Your task to perform on an android device: delete browsing data in the chrome app Image 0: 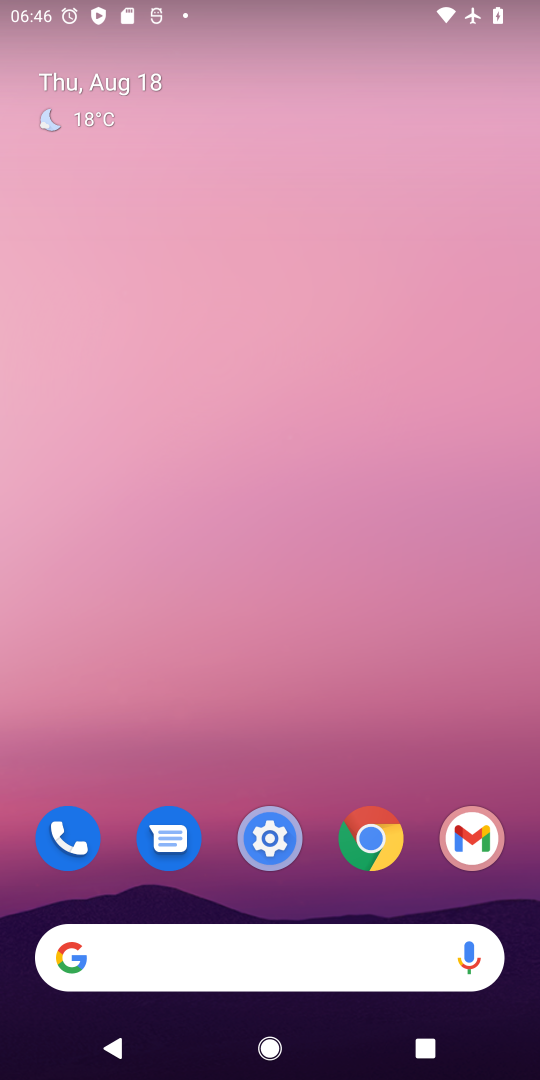
Step 0: press home button
Your task to perform on an android device: delete browsing data in the chrome app Image 1: 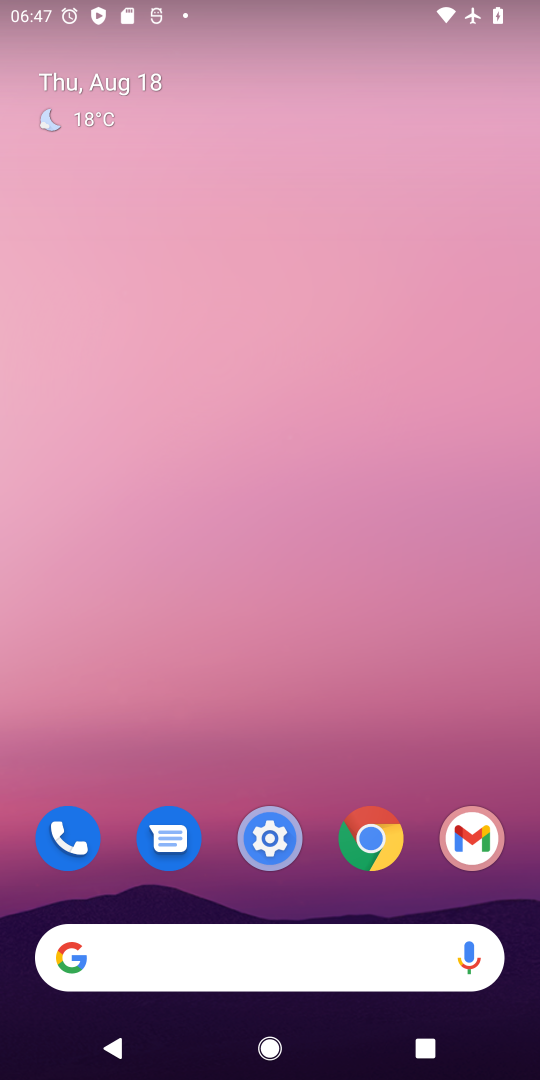
Step 1: click (373, 836)
Your task to perform on an android device: delete browsing data in the chrome app Image 2: 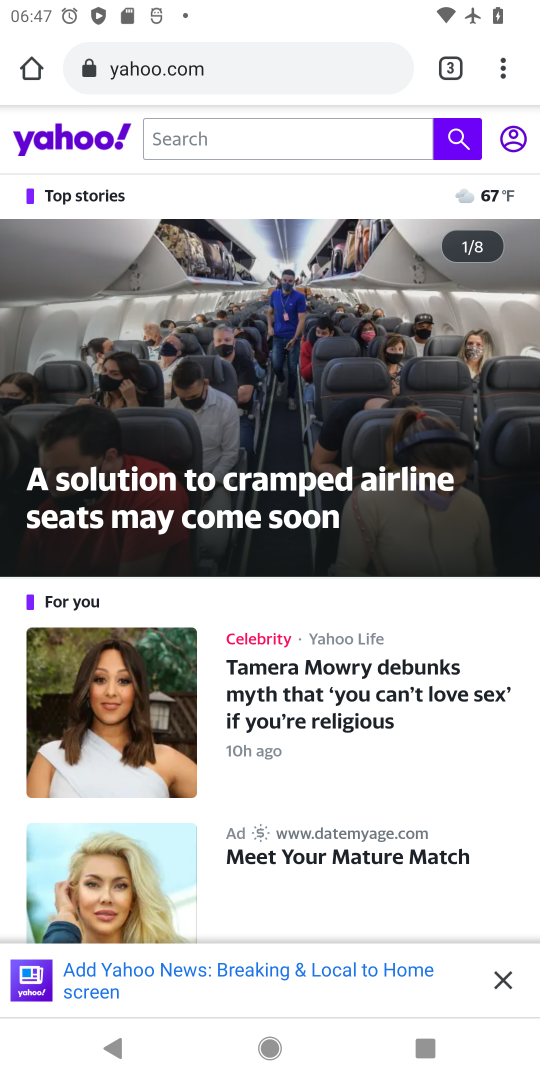
Step 2: drag from (513, 69) to (295, 920)
Your task to perform on an android device: delete browsing data in the chrome app Image 3: 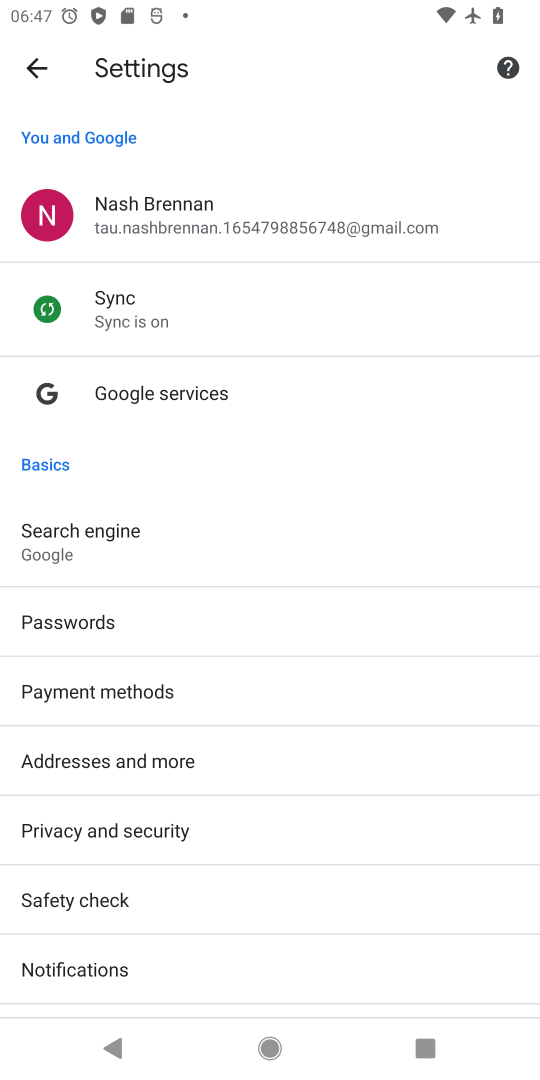
Step 3: click (102, 826)
Your task to perform on an android device: delete browsing data in the chrome app Image 4: 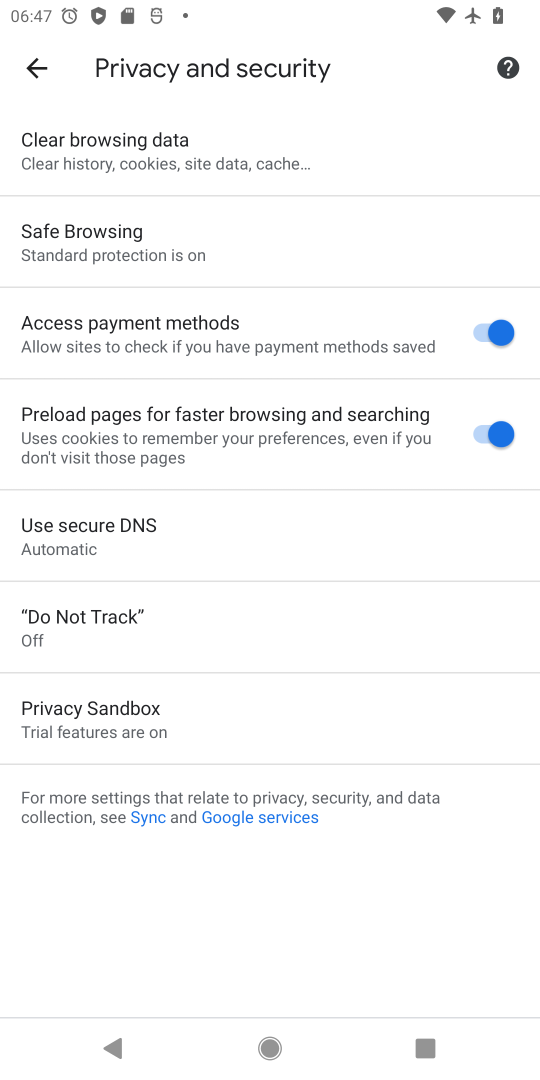
Step 4: click (91, 158)
Your task to perform on an android device: delete browsing data in the chrome app Image 5: 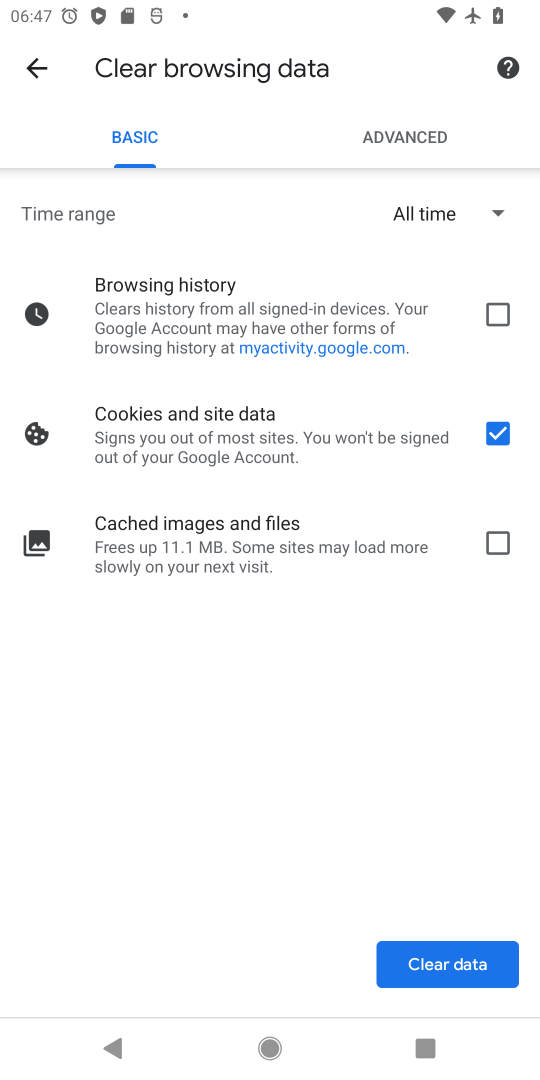
Step 5: click (488, 317)
Your task to perform on an android device: delete browsing data in the chrome app Image 6: 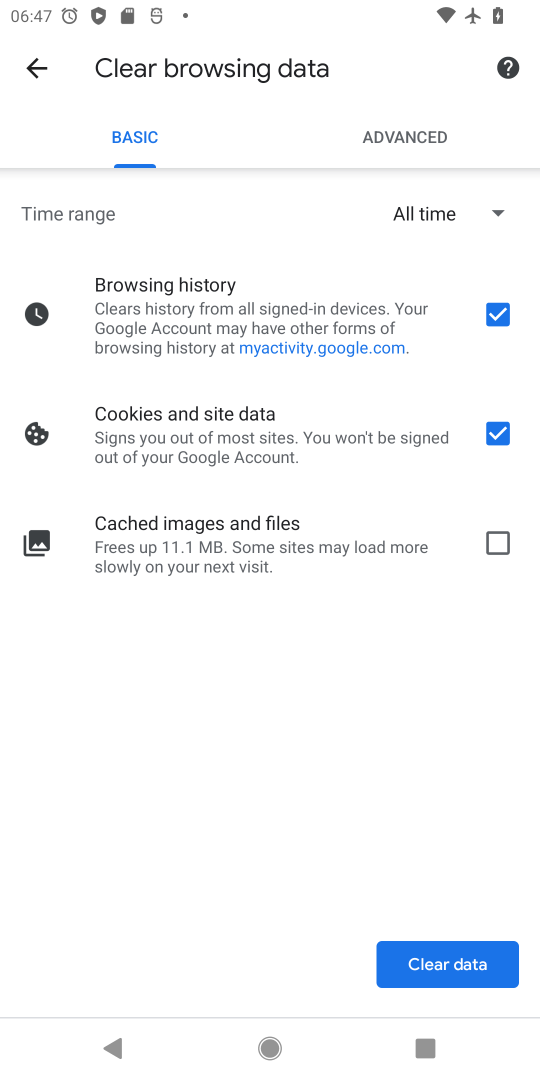
Step 6: click (498, 537)
Your task to perform on an android device: delete browsing data in the chrome app Image 7: 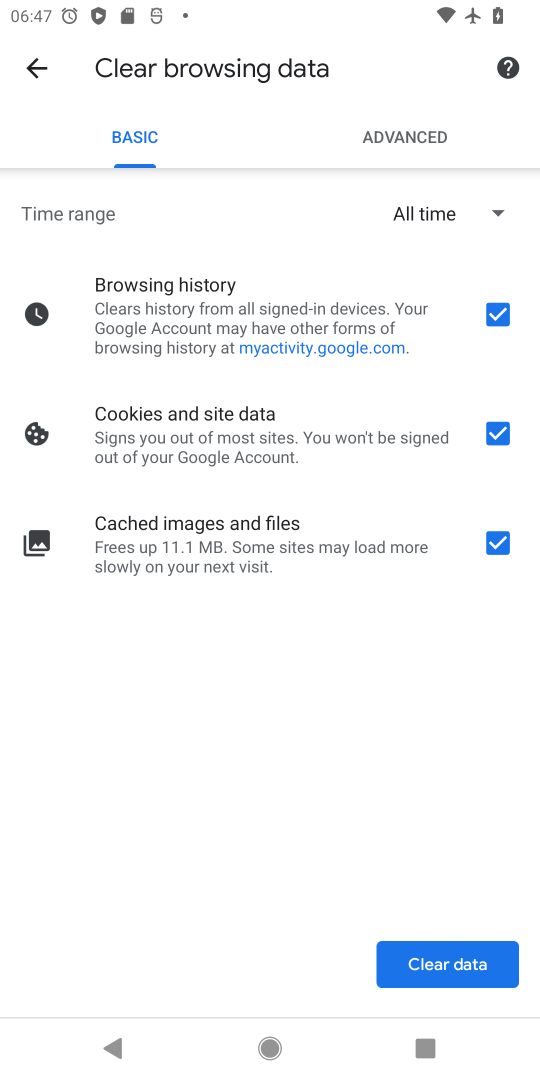
Step 7: click (433, 978)
Your task to perform on an android device: delete browsing data in the chrome app Image 8: 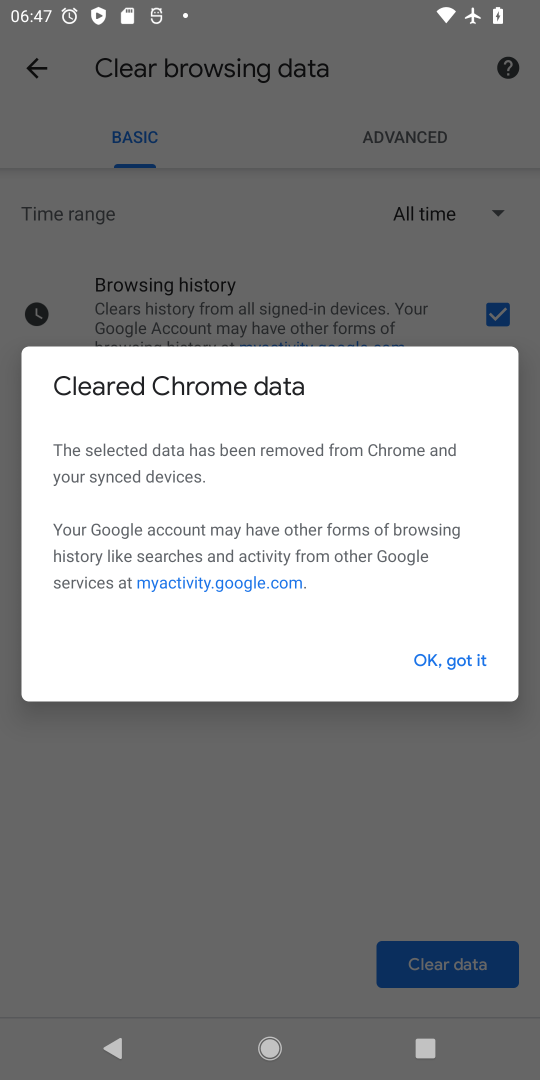
Step 8: click (436, 672)
Your task to perform on an android device: delete browsing data in the chrome app Image 9: 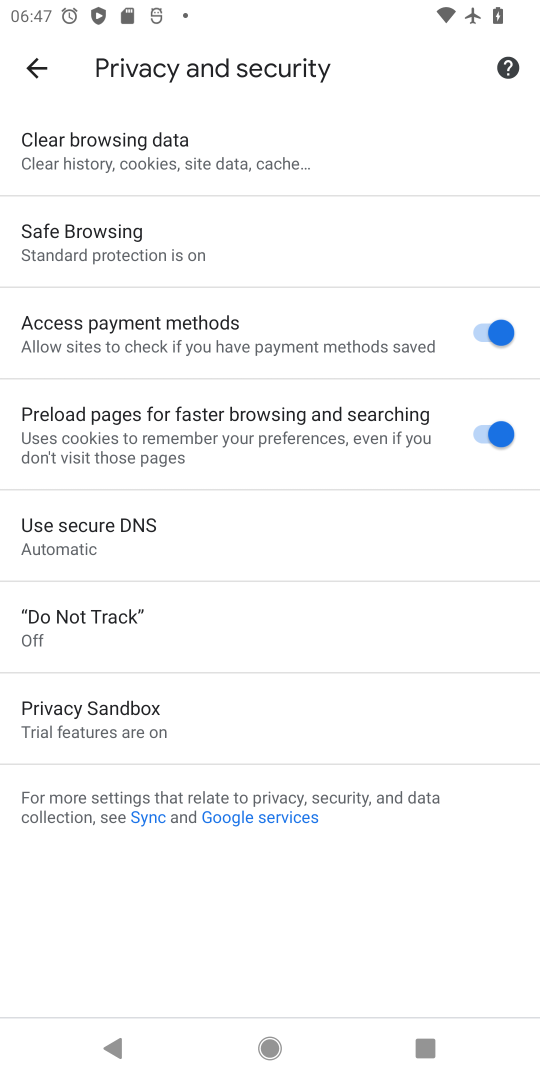
Step 9: task complete